Your task to perform on an android device: Open the stopwatch Image 0: 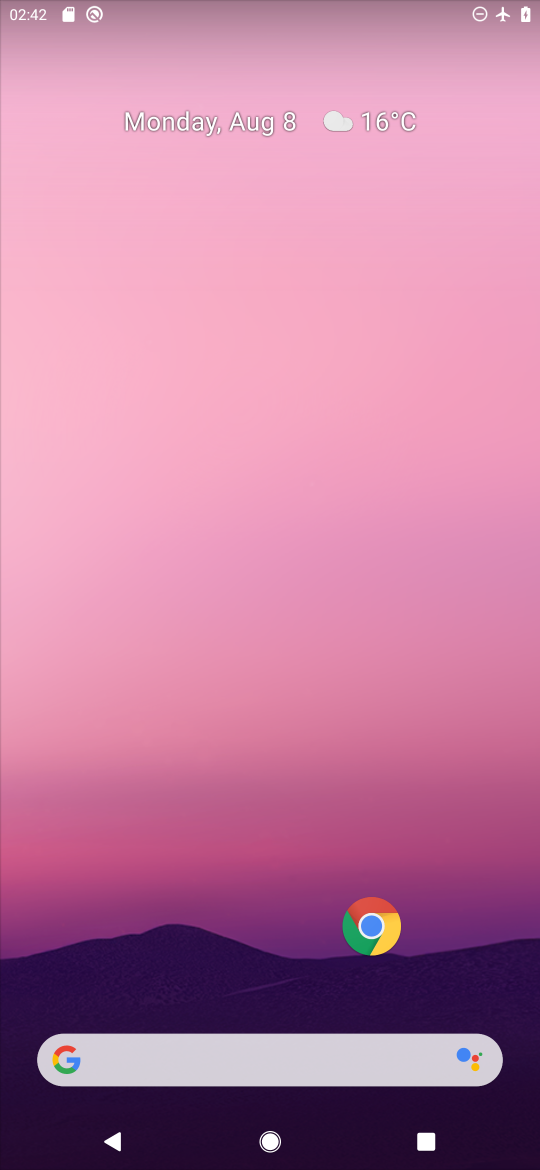
Step 0: drag from (195, 986) to (369, 77)
Your task to perform on an android device: Open the stopwatch Image 1: 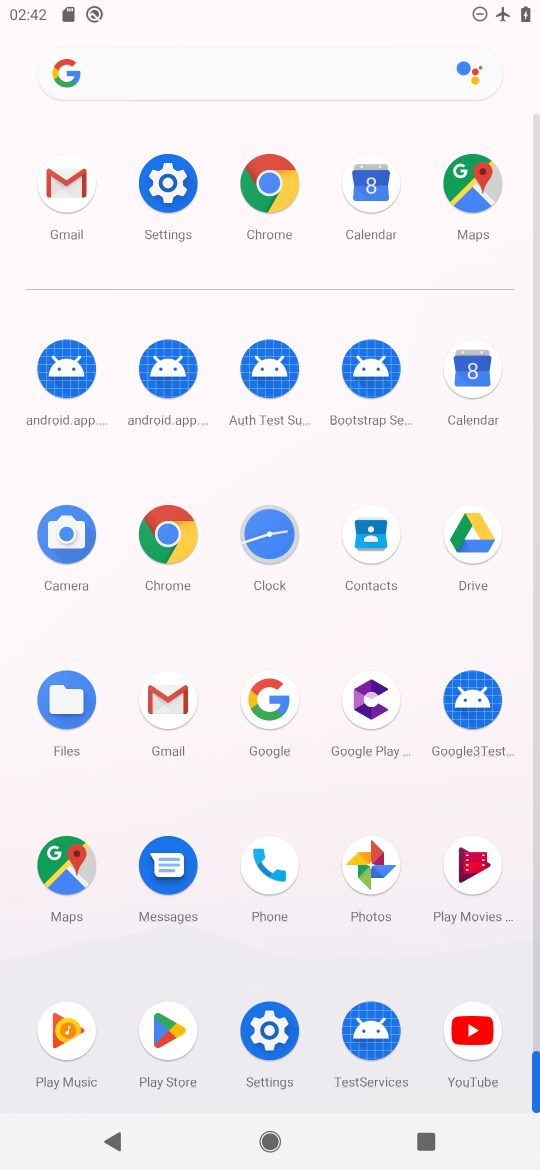
Step 1: click (245, 528)
Your task to perform on an android device: Open the stopwatch Image 2: 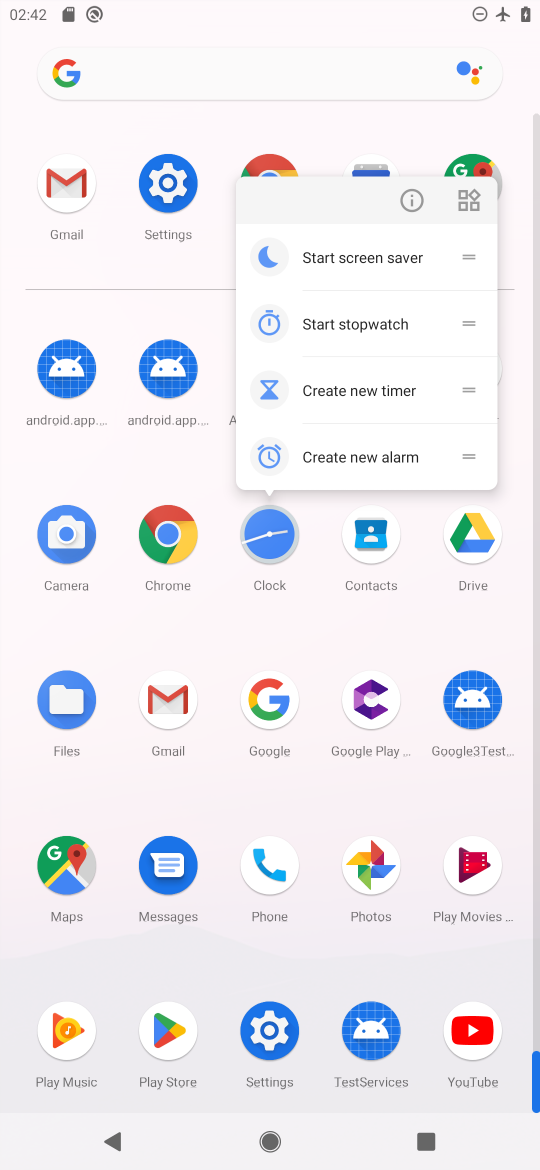
Step 2: click (281, 532)
Your task to perform on an android device: Open the stopwatch Image 3: 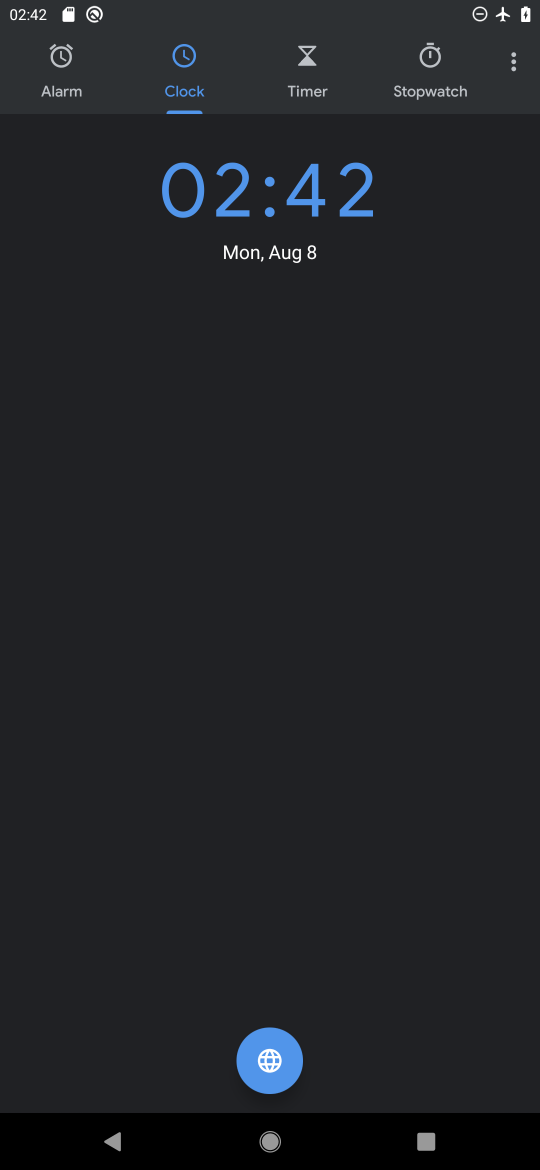
Step 3: click (409, 67)
Your task to perform on an android device: Open the stopwatch Image 4: 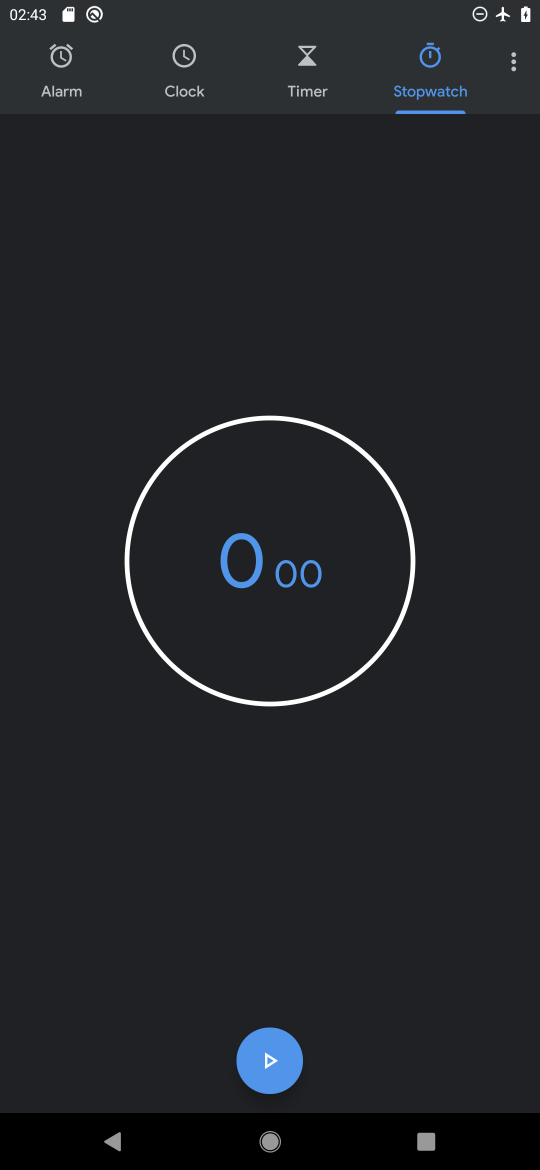
Step 4: task complete